Your task to perform on an android device: What's the weather? Image 0: 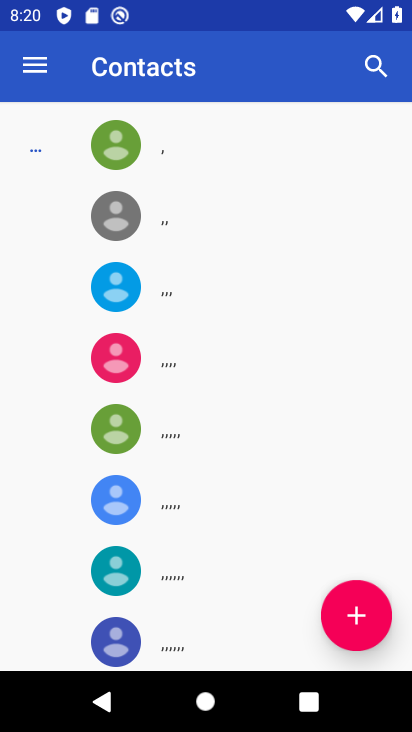
Step 0: press home button
Your task to perform on an android device: What's the weather? Image 1: 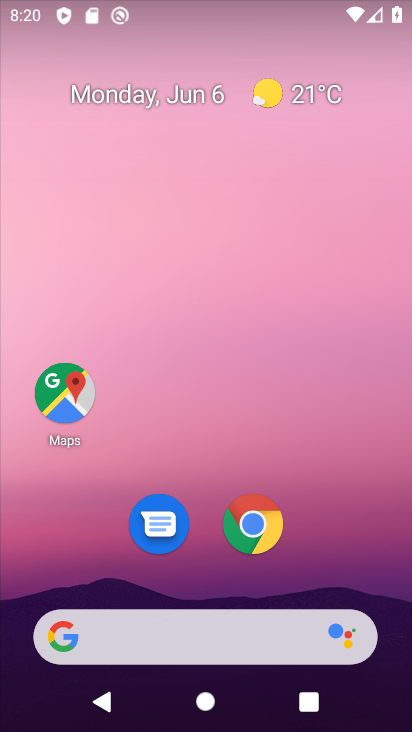
Step 1: click (278, 100)
Your task to perform on an android device: What's the weather? Image 2: 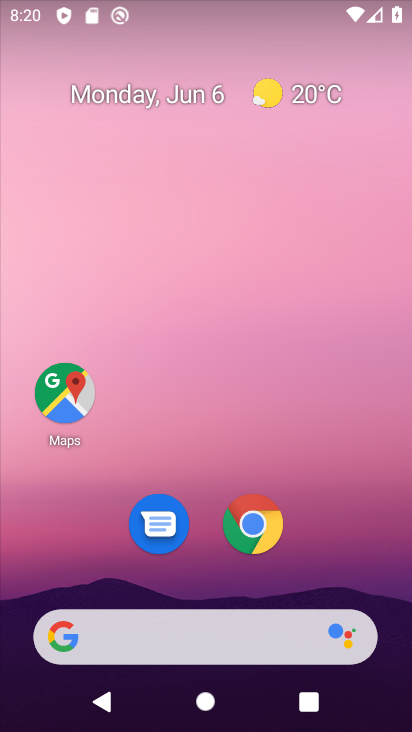
Step 2: click (256, 94)
Your task to perform on an android device: What's the weather? Image 3: 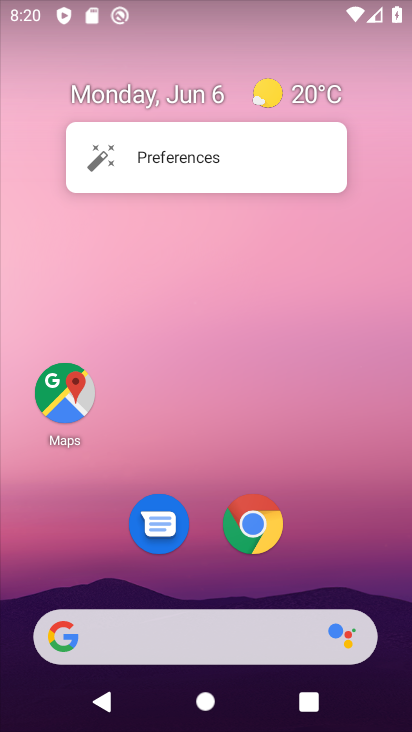
Step 3: click (283, 92)
Your task to perform on an android device: What's the weather? Image 4: 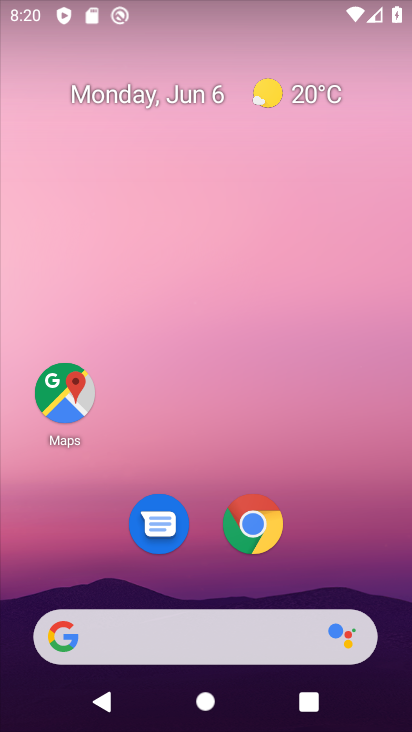
Step 4: click (202, 641)
Your task to perform on an android device: What's the weather? Image 5: 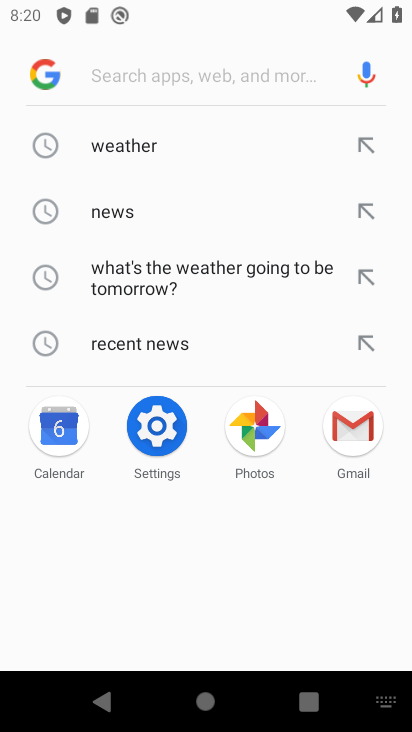
Step 5: click (146, 137)
Your task to perform on an android device: What's the weather? Image 6: 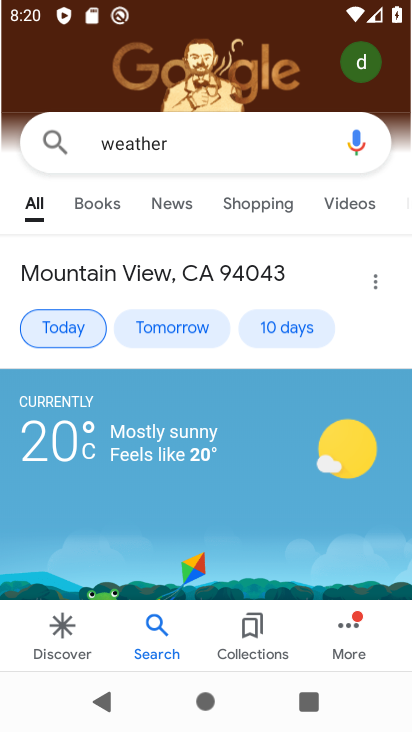
Step 6: click (66, 324)
Your task to perform on an android device: What's the weather? Image 7: 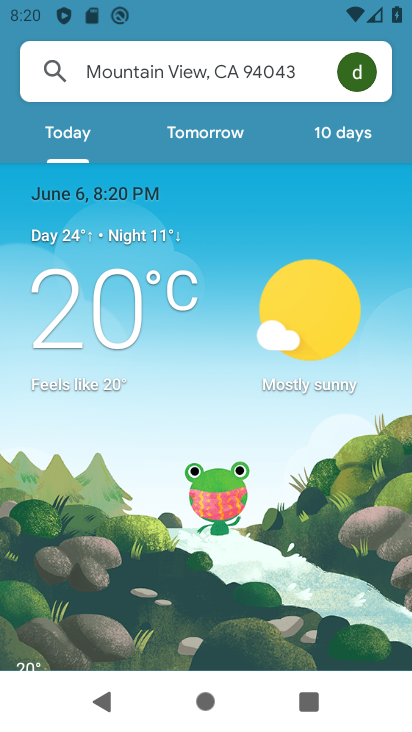
Step 7: task complete